Your task to perform on an android device: Open Youtube and go to "Your channel" Image 0: 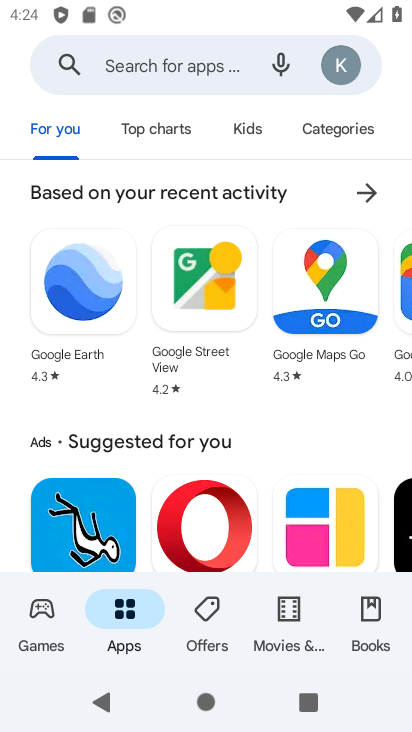
Step 0: press home button
Your task to perform on an android device: Open Youtube and go to "Your channel" Image 1: 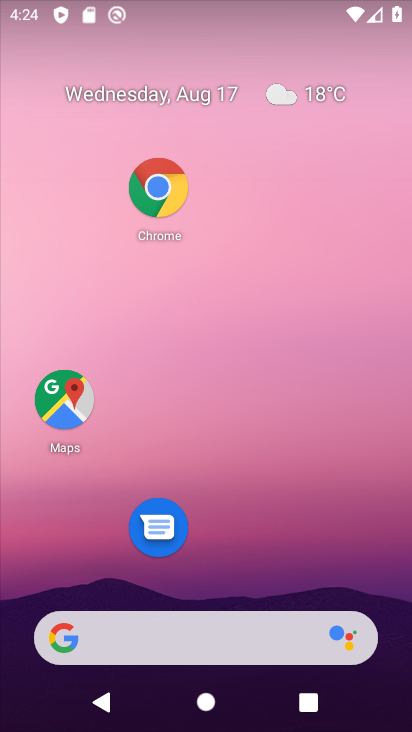
Step 1: drag from (211, 586) to (217, 0)
Your task to perform on an android device: Open Youtube and go to "Your channel" Image 2: 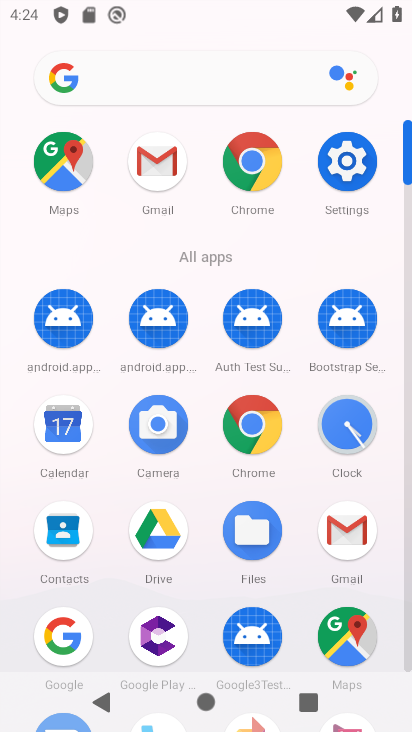
Step 2: drag from (202, 584) to (181, 178)
Your task to perform on an android device: Open Youtube and go to "Your channel" Image 3: 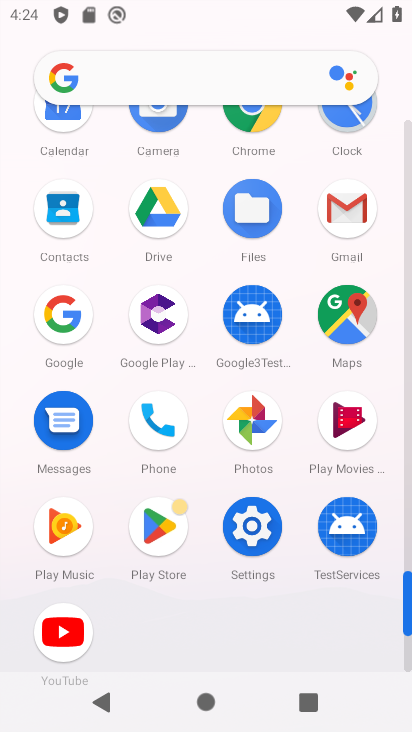
Step 3: click (61, 619)
Your task to perform on an android device: Open Youtube and go to "Your channel" Image 4: 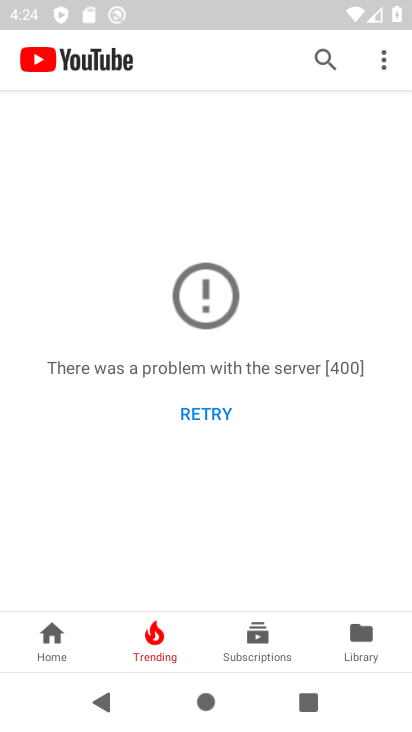
Step 4: click (61, 619)
Your task to perform on an android device: Open Youtube and go to "Your channel" Image 5: 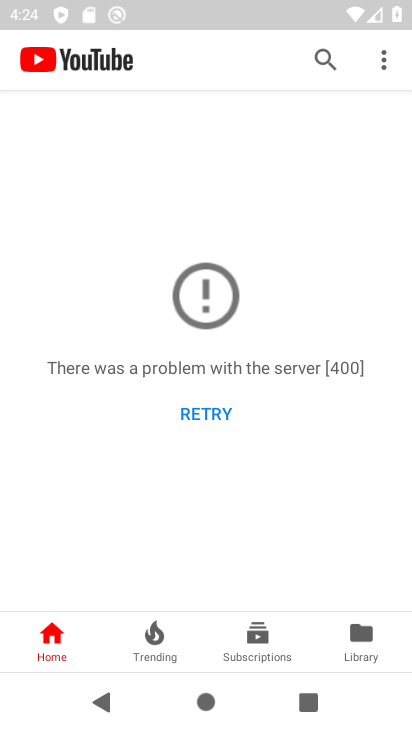
Step 5: click (322, 53)
Your task to perform on an android device: Open Youtube and go to "Your channel" Image 6: 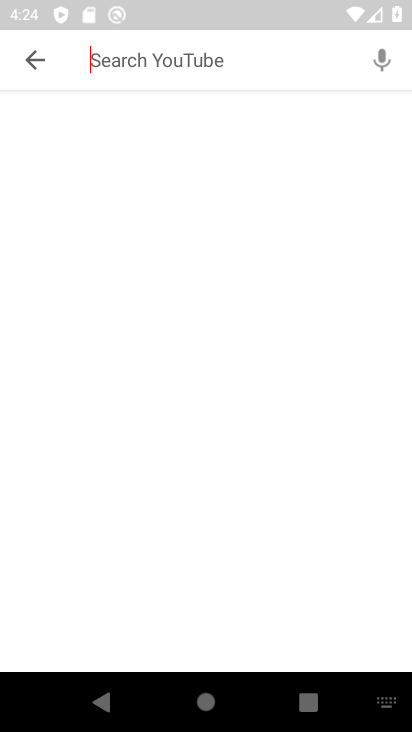
Step 6: type "your channel"
Your task to perform on an android device: Open Youtube and go to "Your channel" Image 7: 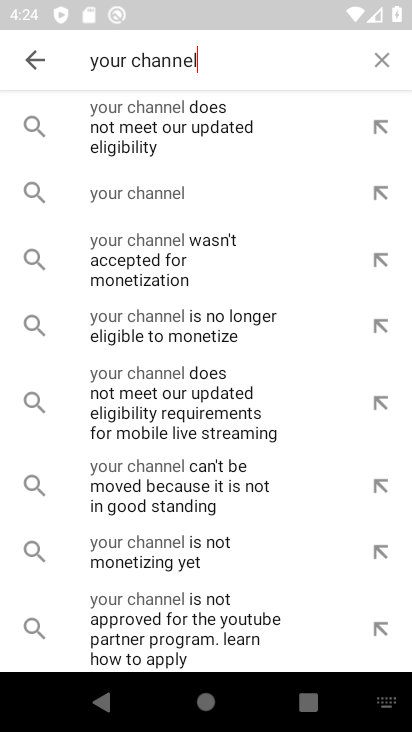
Step 7: click (126, 206)
Your task to perform on an android device: Open Youtube and go to "Your channel" Image 8: 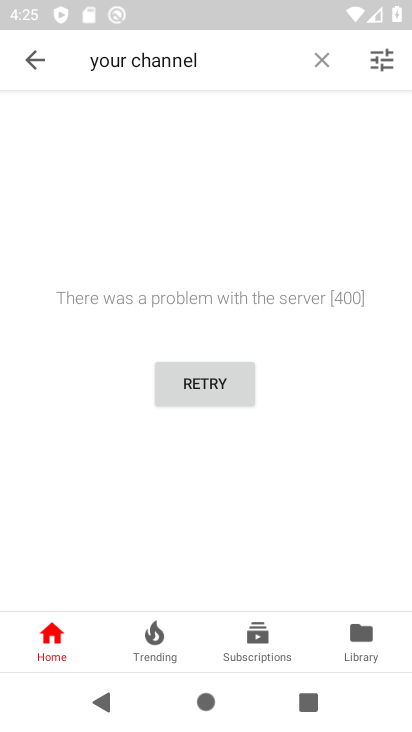
Step 8: task complete